Your task to perform on an android device: Go to accessibility settings Image 0: 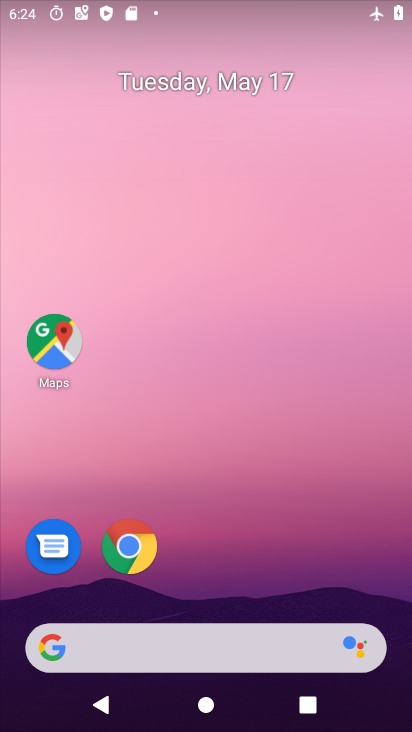
Step 0: drag from (227, 594) to (256, 220)
Your task to perform on an android device: Go to accessibility settings Image 1: 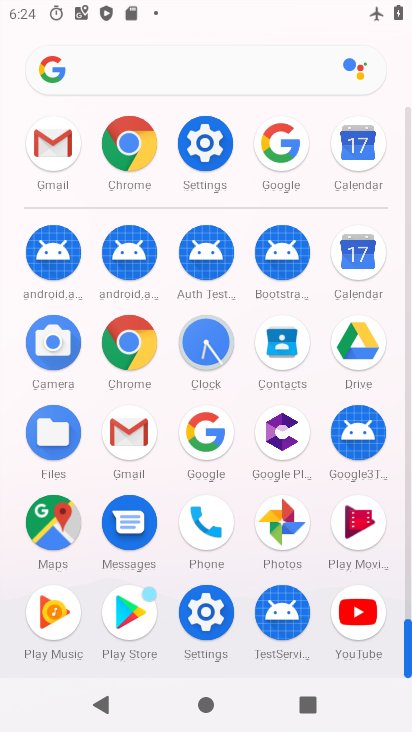
Step 1: click (201, 143)
Your task to perform on an android device: Go to accessibility settings Image 2: 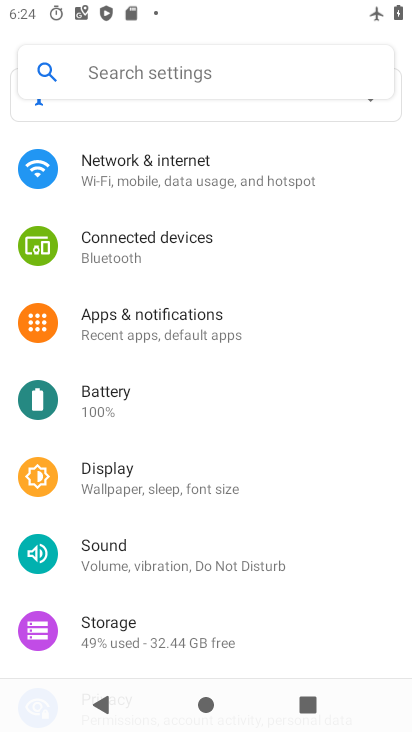
Step 2: drag from (135, 576) to (161, 176)
Your task to perform on an android device: Go to accessibility settings Image 3: 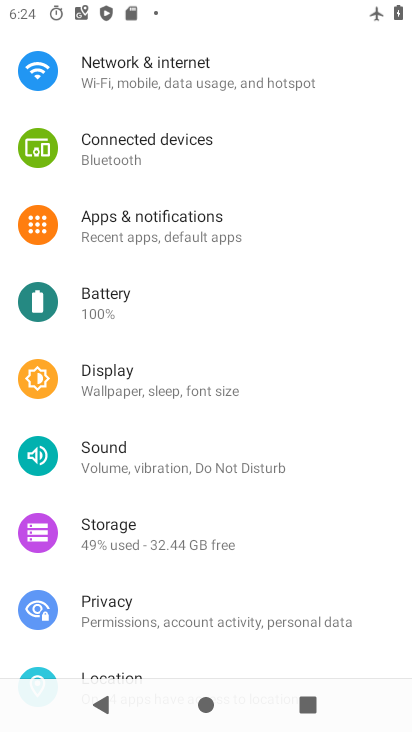
Step 3: drag from (132, 384) to (150, 191)
Your task to perform on an android device: Go to accessibility settings Image 4: 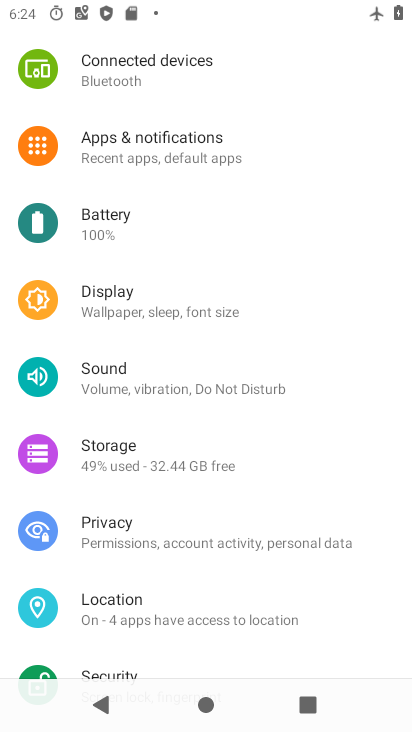
Step 4: drag from (180, 573) to (191, 266)
Your task to perform on an android device: Go to accessibility settings Image 5: 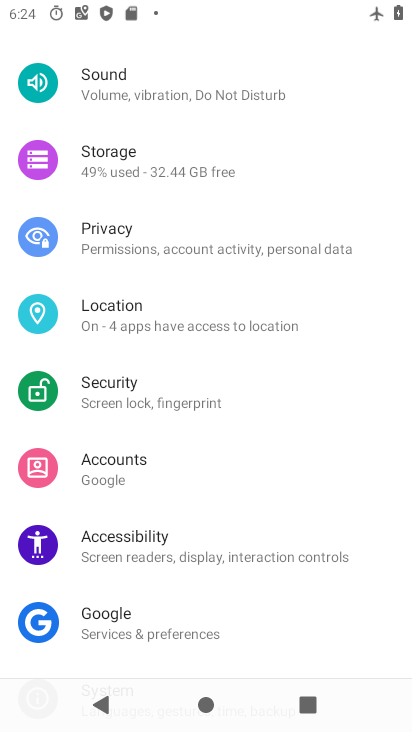
Step 5: click (144, 564)
Your task to perform on an android device: Go to accessibility settings Image 6: 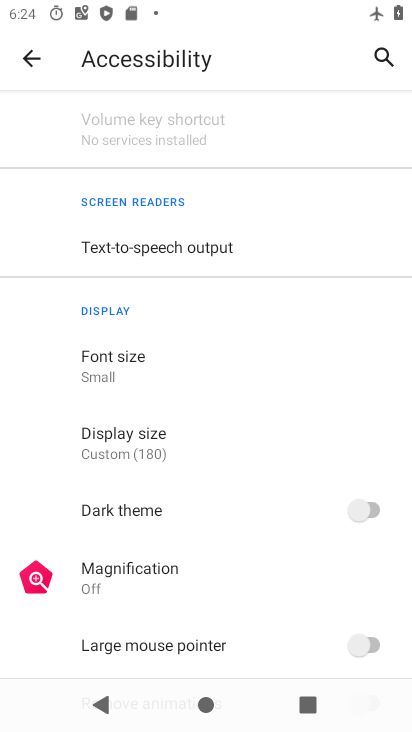
Step 6: task complete